Your task to perform on an android device: check out phone information Image 0: 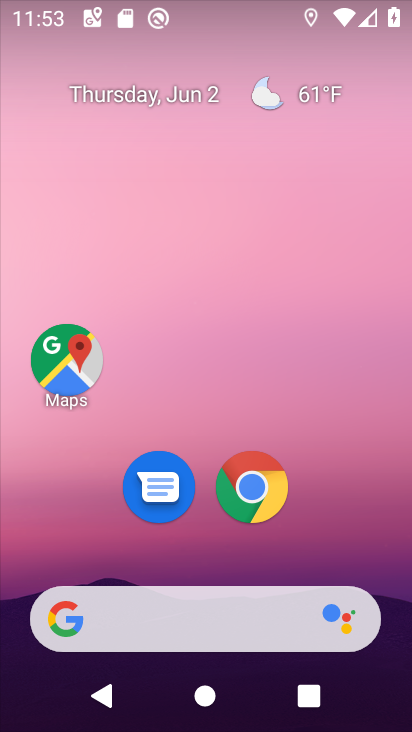
Step 0: drag from (330, 532) to (234, 102)
Your task to perform on an android device: check out phone information Image 1: 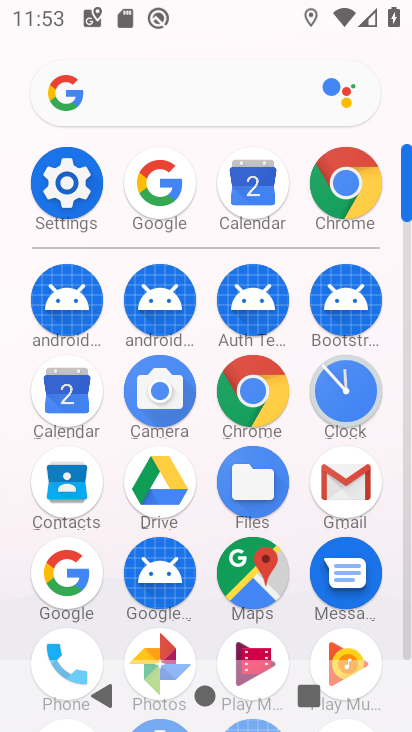
Step 1: click (68, 181)
Your task to perform on an android device: check out phone information Image 2: 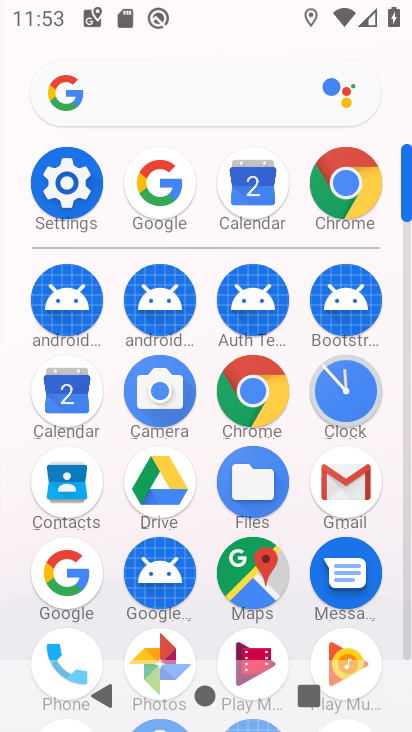
Step 2: click (68, 181)
Your task to perform on an android device: check out phone information Image 3: 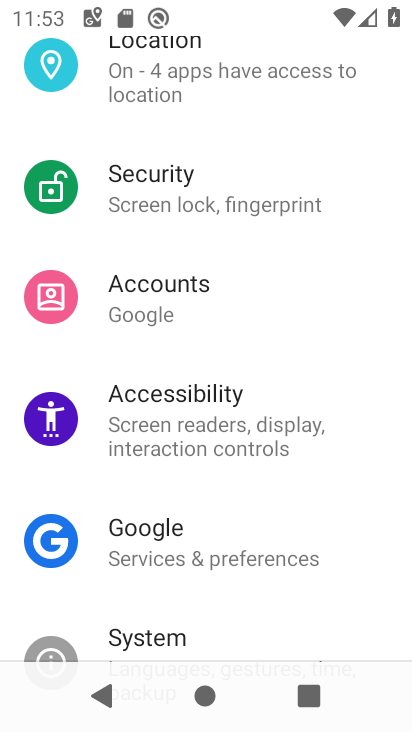
Step 3: drag from (193, 360) to (231, 280)
Your task to perform on an android device: check out phone information Image 4: 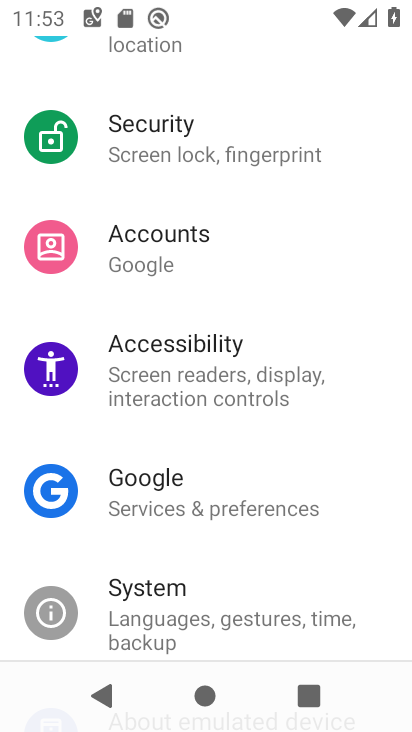
Step 4: drag from (187, 439) to (235, 303)
Your task to perform on an android device: check out phone information Image 5: 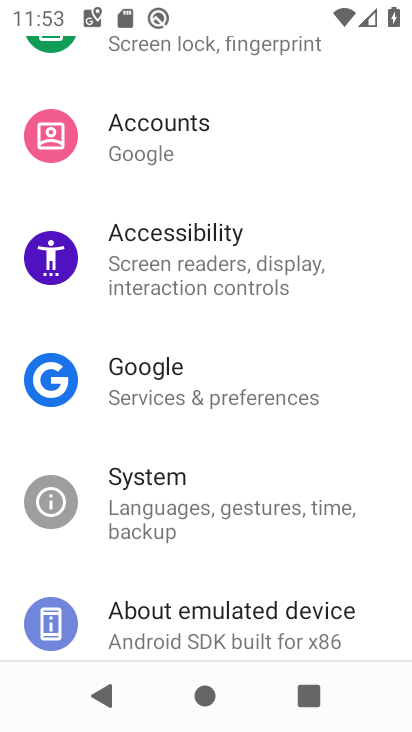
Step 5: drag from (157, 446) to (243, 342)
Your task to perform on an android device: check out phone information Image 6: 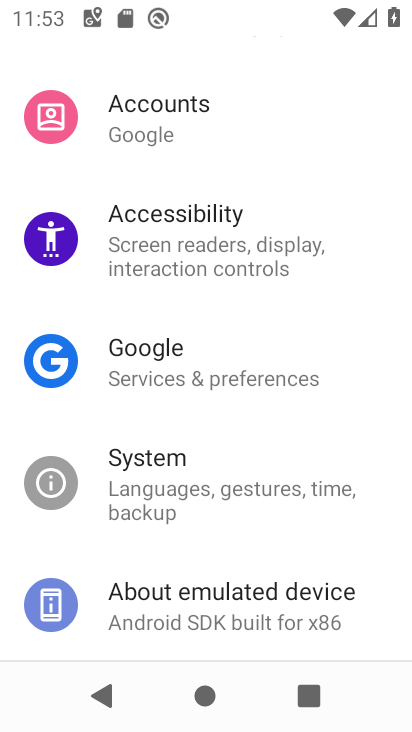
Step 6: click (187, 604)
Your task to perform on an android device: check out phone information Image 7: 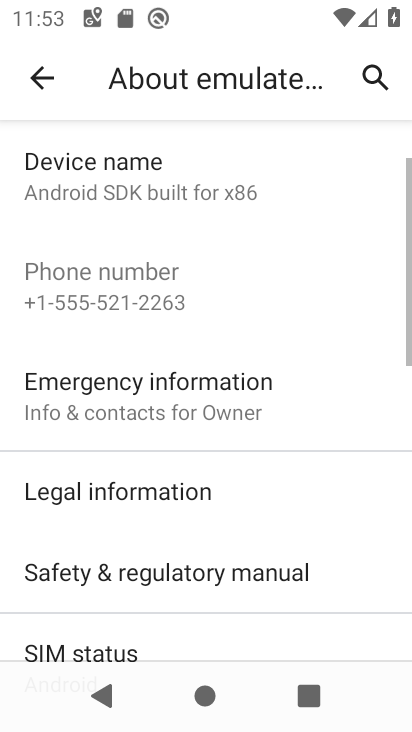
Step 7: click (239, 288)
Your task to perform on an android device: check out phone information Image 8: 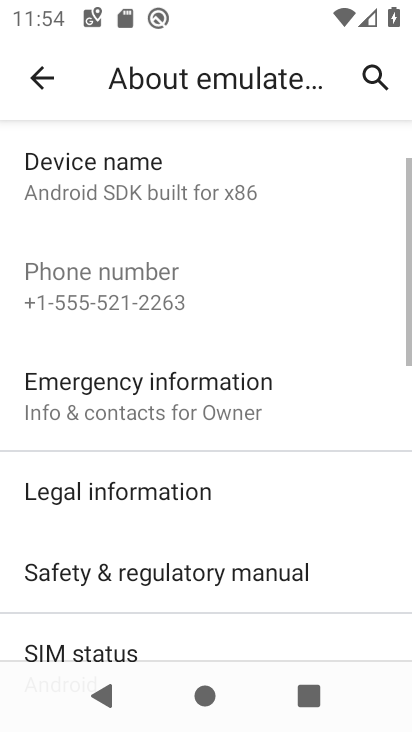
Step 8: task complete